Your task to perform on an android device: Search for sushi restaurants on Maps Image 0: 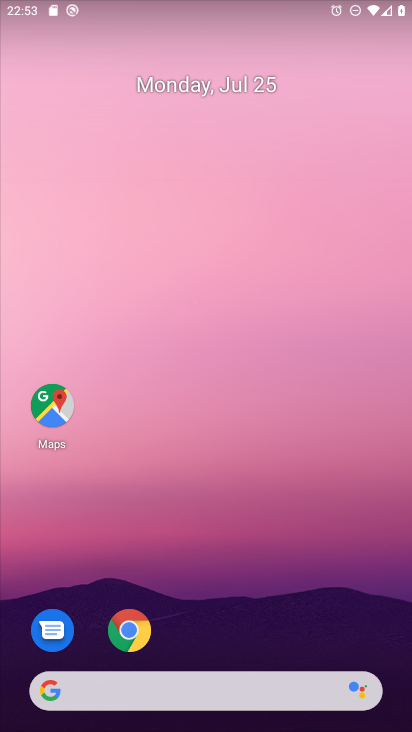
Step 0: drag from (289, 625) to (189, 28)
Your task to perform on an android device: Search for sushi restaurants on Maps Image 1: 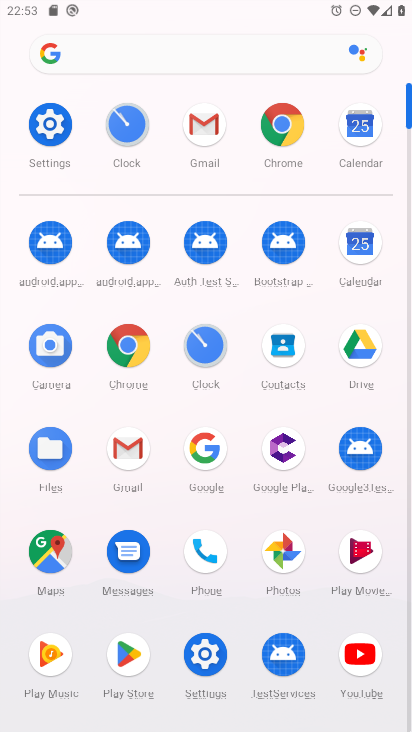
Step 1: click (58, 565)
Your task to perform on an android device: Search for sushi restaurants on Maps Image 2: 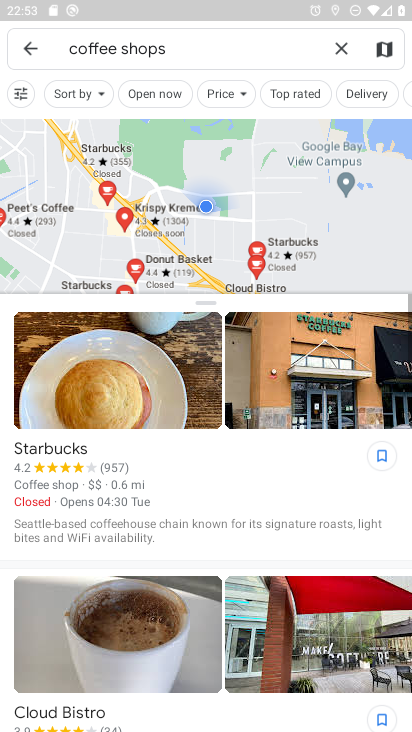
Step 2: click (222, 57)
Your task to perform on an android device: Search for sushi restaurants on Maps Image 3: 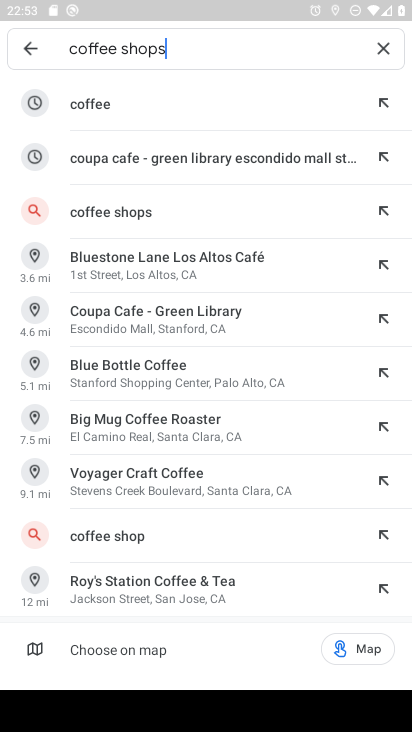
Step 3: click (388, 41)
Your task to perform on an android device: Search for sushi restaurants on Maps Image 4: 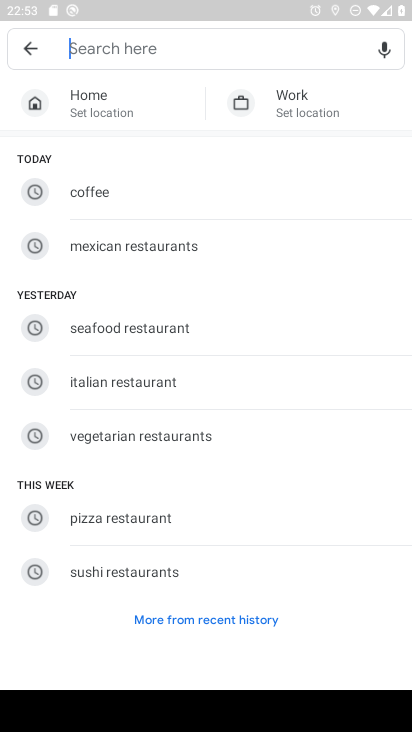
Step 4: type "sushi restaurants"
Your task to perform on an android device: Search for sushi restaurants on Maps Image 5: 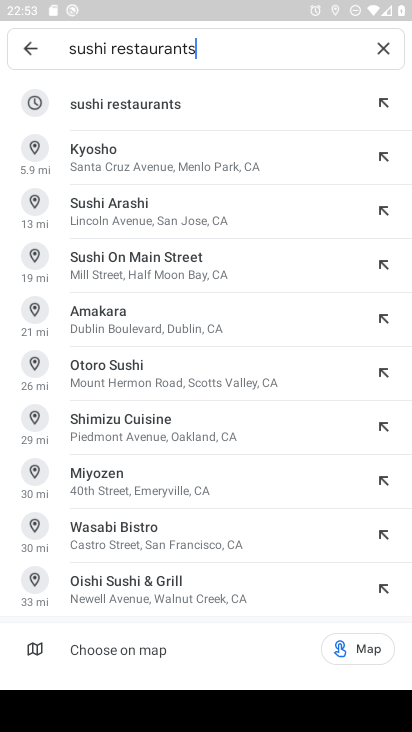
Step 5: click (136, 104)
Your task to perform on an android device: Search for sushi restaurants on Maps Image 6: 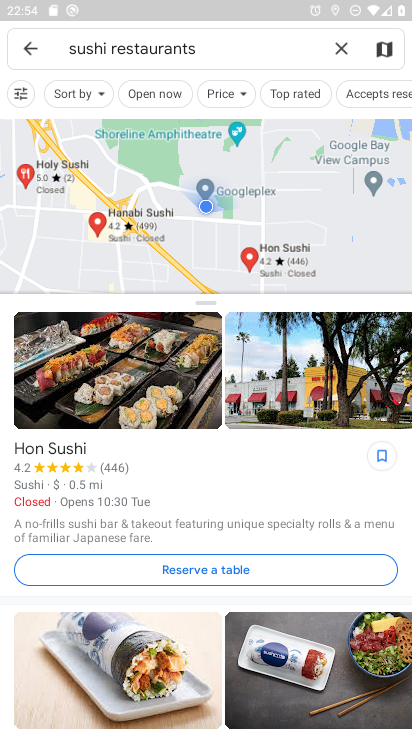
Step 6: task complete